Your task to perform on an android device: Go to battery settings Image 0: 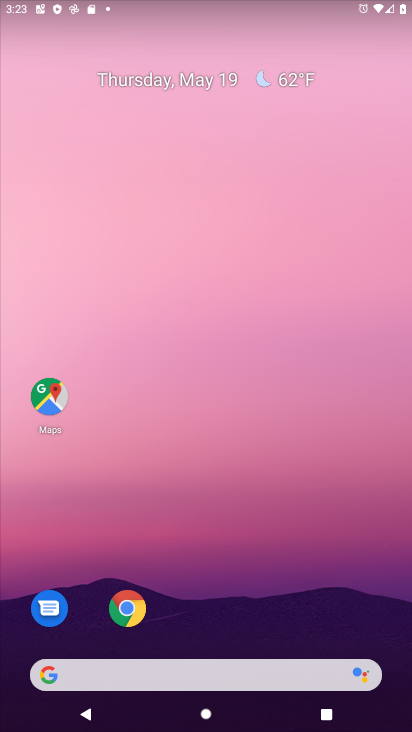
Step 0: drag from (323, 569) to (281, 77)
Your task to perform on an android device: Go to battery settings Image 1: 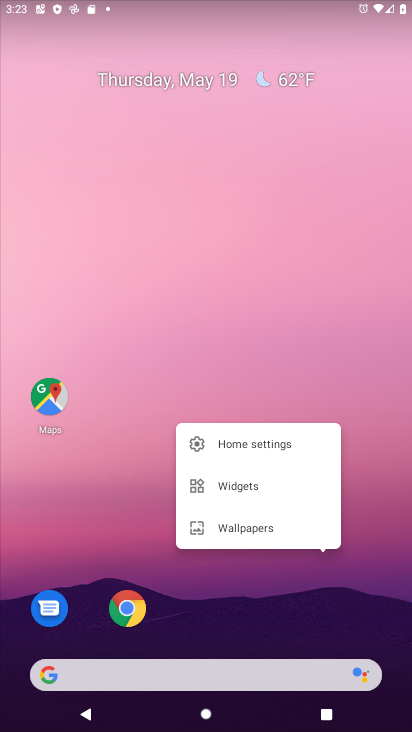
Step 1: click (127, 518)
Your task to perform on an android device: Go to battery settings Image 2: 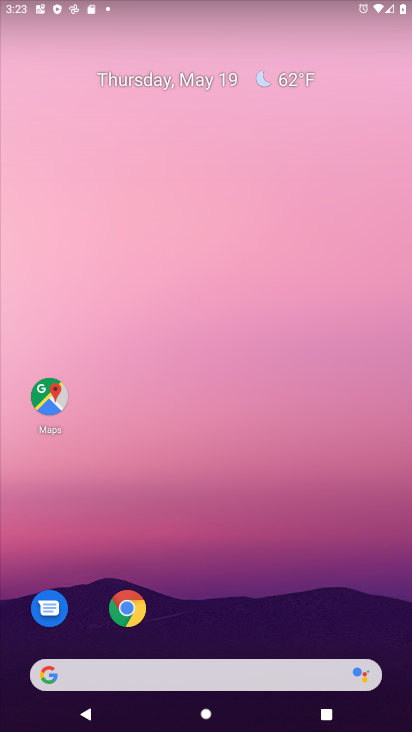
Step 2: drag from (272, 597) to (252, 198)
Your task to perform on an android device: Go to battery settings Image 3: 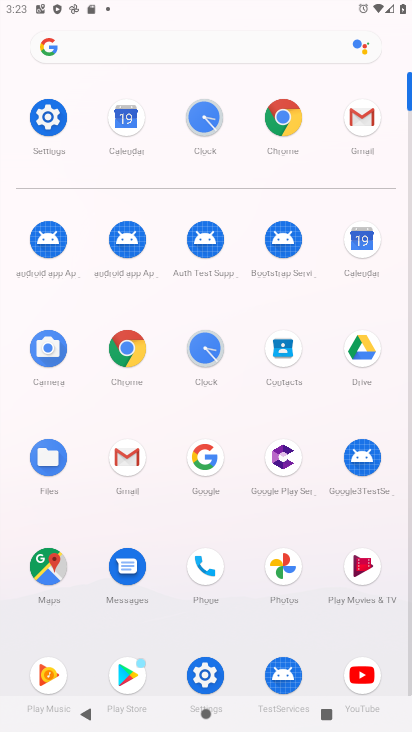
Step 3: click (218, 676)
Your task to perform on an android device: Go to battery settings Image 4: 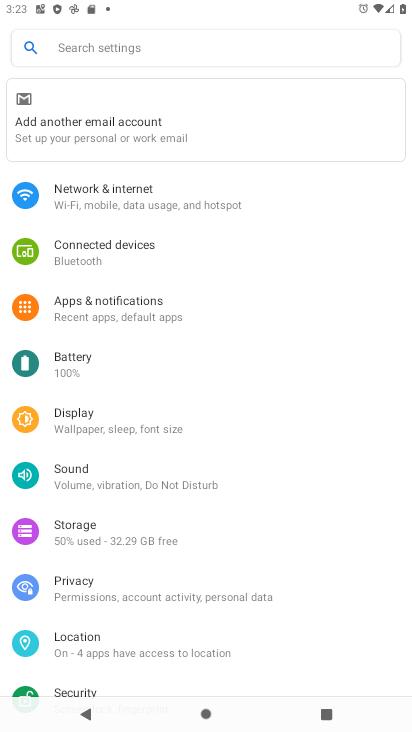
Step 4: click (76, 361)
Your task to perform on an android device: Go to battery settings Image 5: 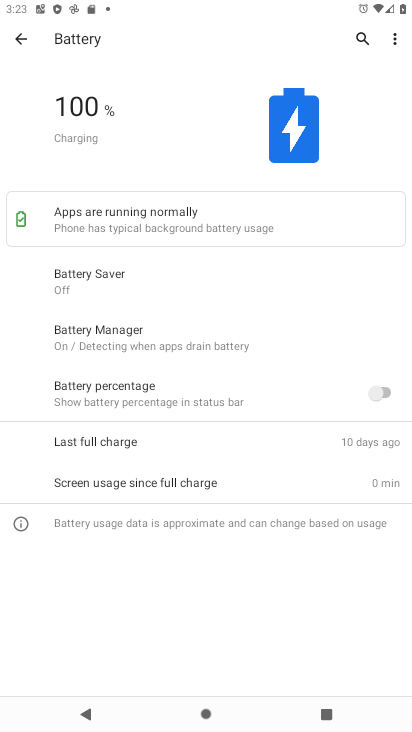
Step 5: task complete